Your task to perform on an android device: Show the shopping cart on walmart.com. Add jbl flip 4 to the cart on walmart.com Image 0: 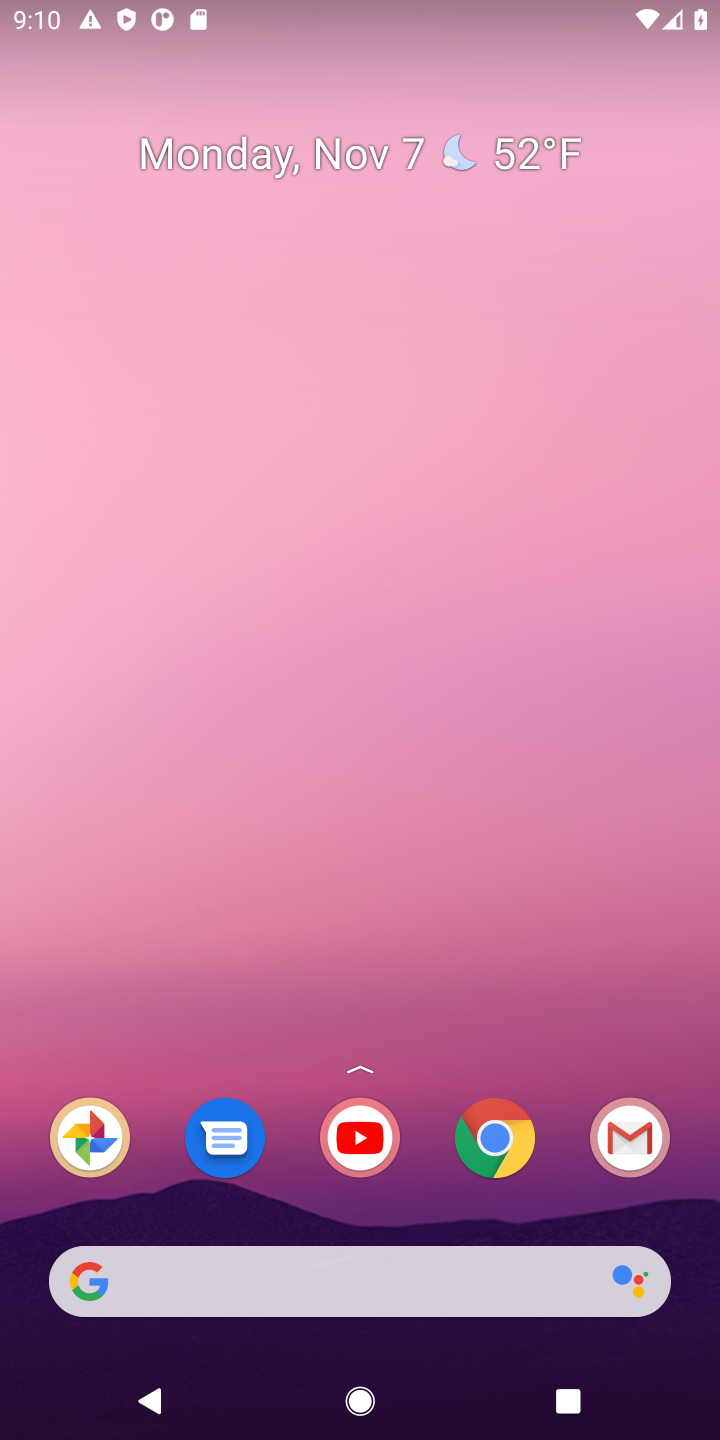
Step 0: drag from (422, 1199) to (487, 320)
Your task to perform on an android device: Show the shopping cart on walmart.com. Add jbl flip 4 to the cart on walmart.com Image 1: 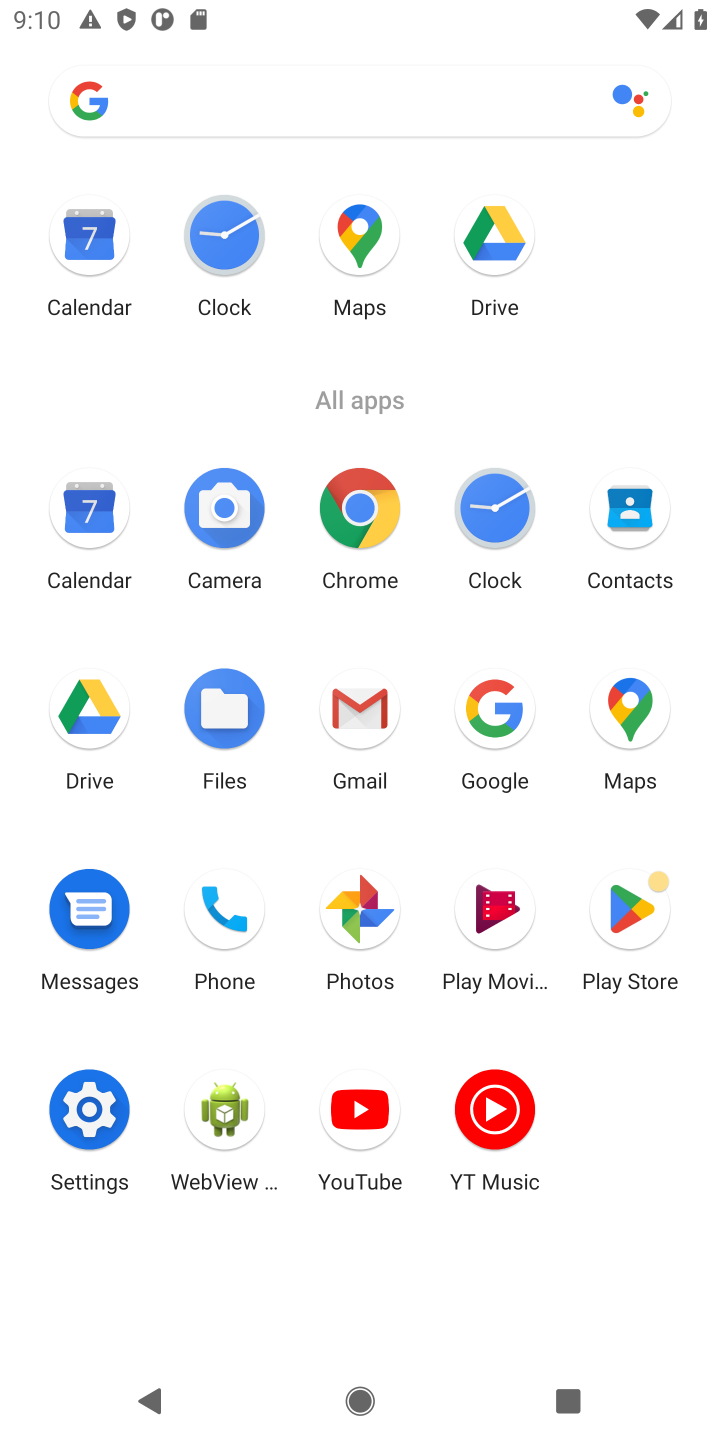
Step 1: click (369, 496)
Your task to perform on an android device: Show the shopping cart on walmart.com. Add jbl flip 4 to the cart on walmart.com Image 2: 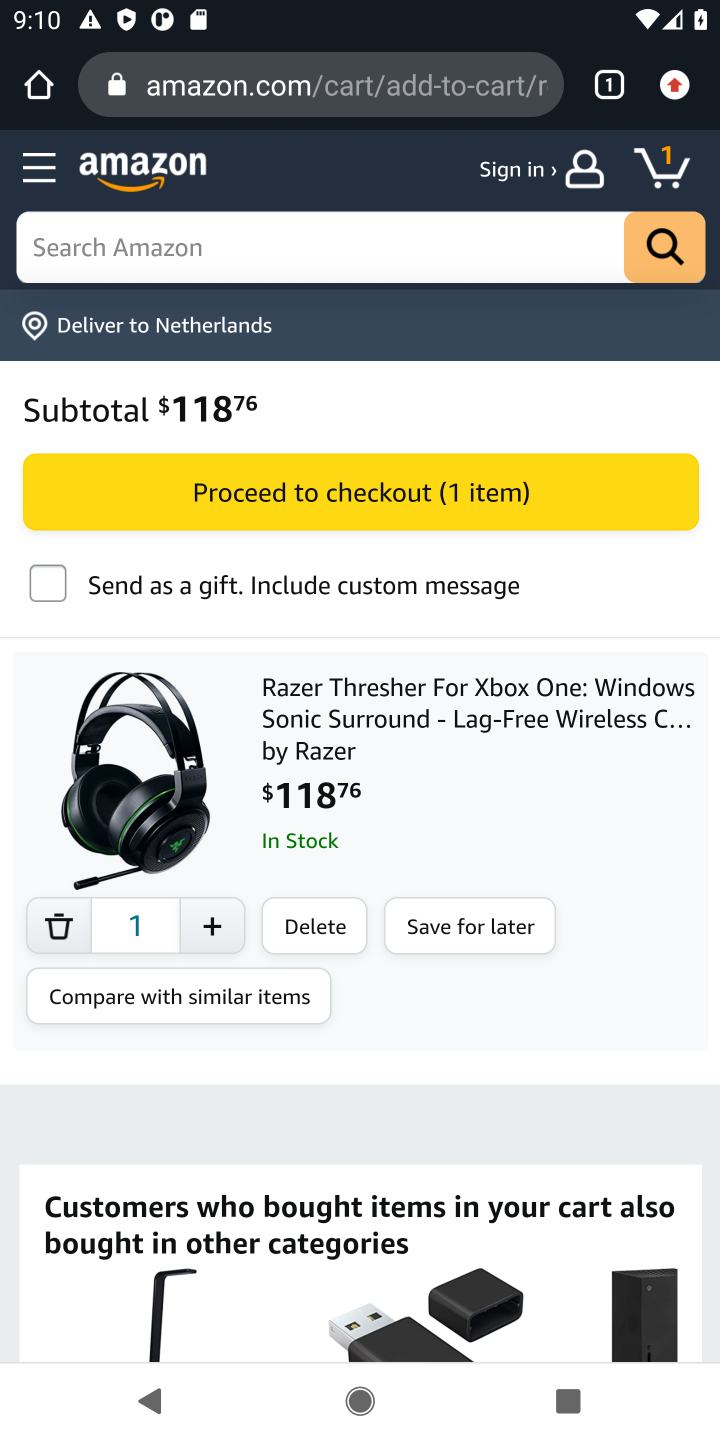
Step 2: click (348, 95)
Your task to perform on an android device: Show the shopping cart on walmart.com. Add jbl flip 4 to the cart on walmart.com Image 3: 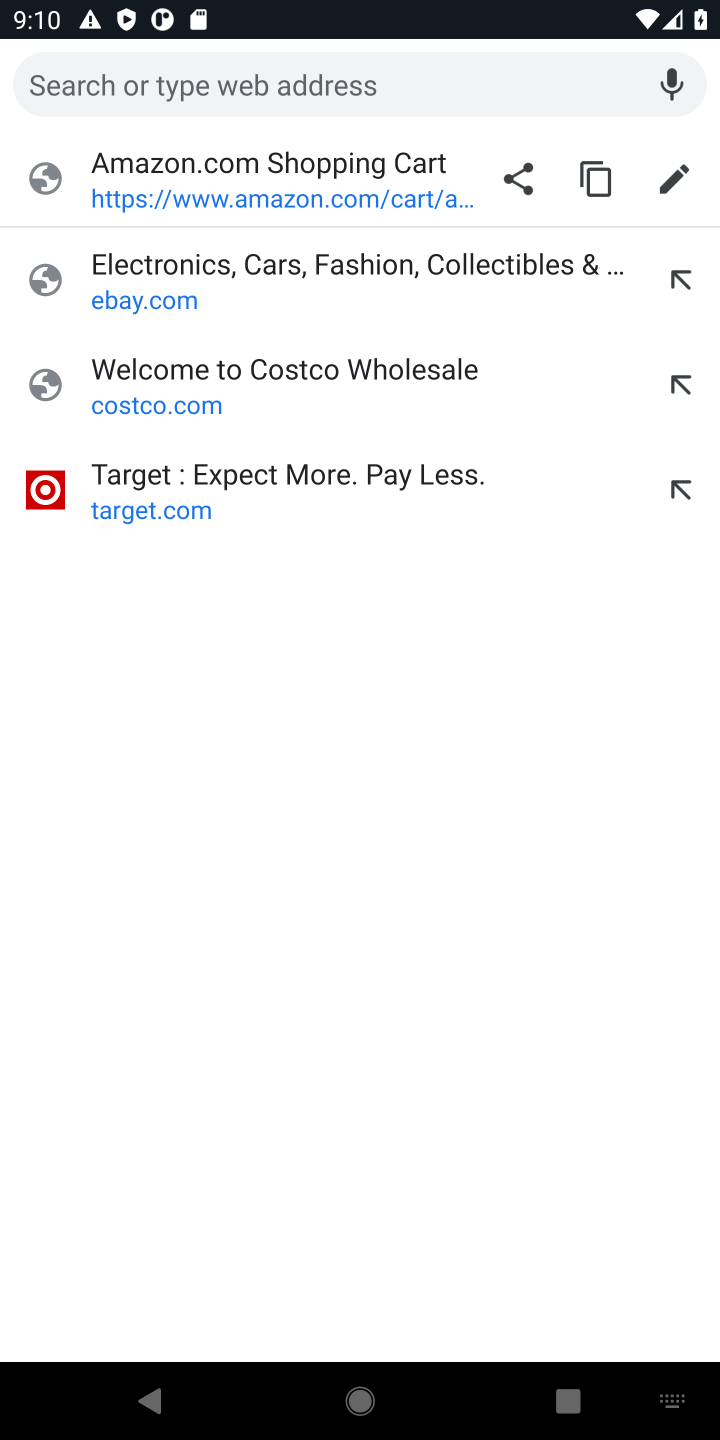
Step 3: type "walmart.com"
Your task to perform on an android device: Show the shopping cart on walmart.com. Add jbl flip 4 to the cart on walmart.com Image 4: 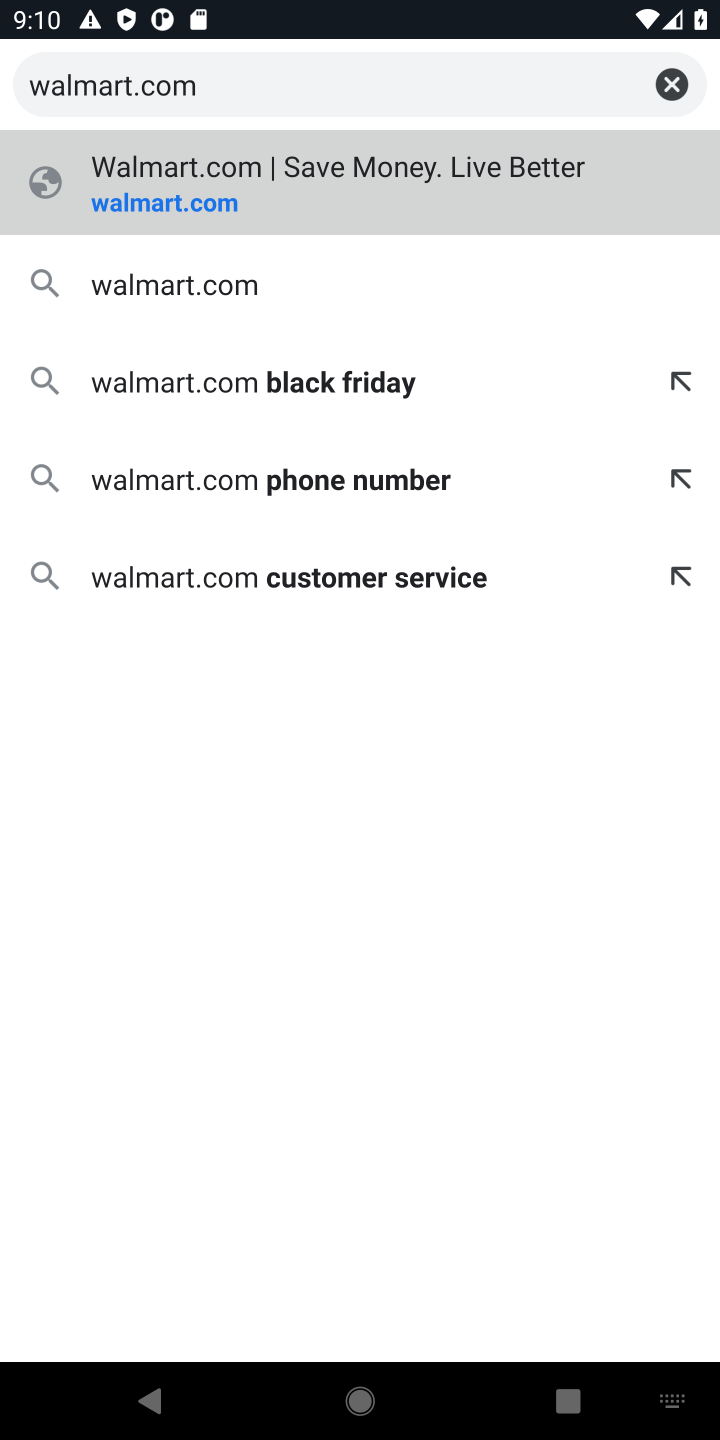
Step 4: press enter
Your task to perform on an android device: Show the shopping cart on walmart.com. Add jbl flip 4 to the cart on walmart.com Image 5: 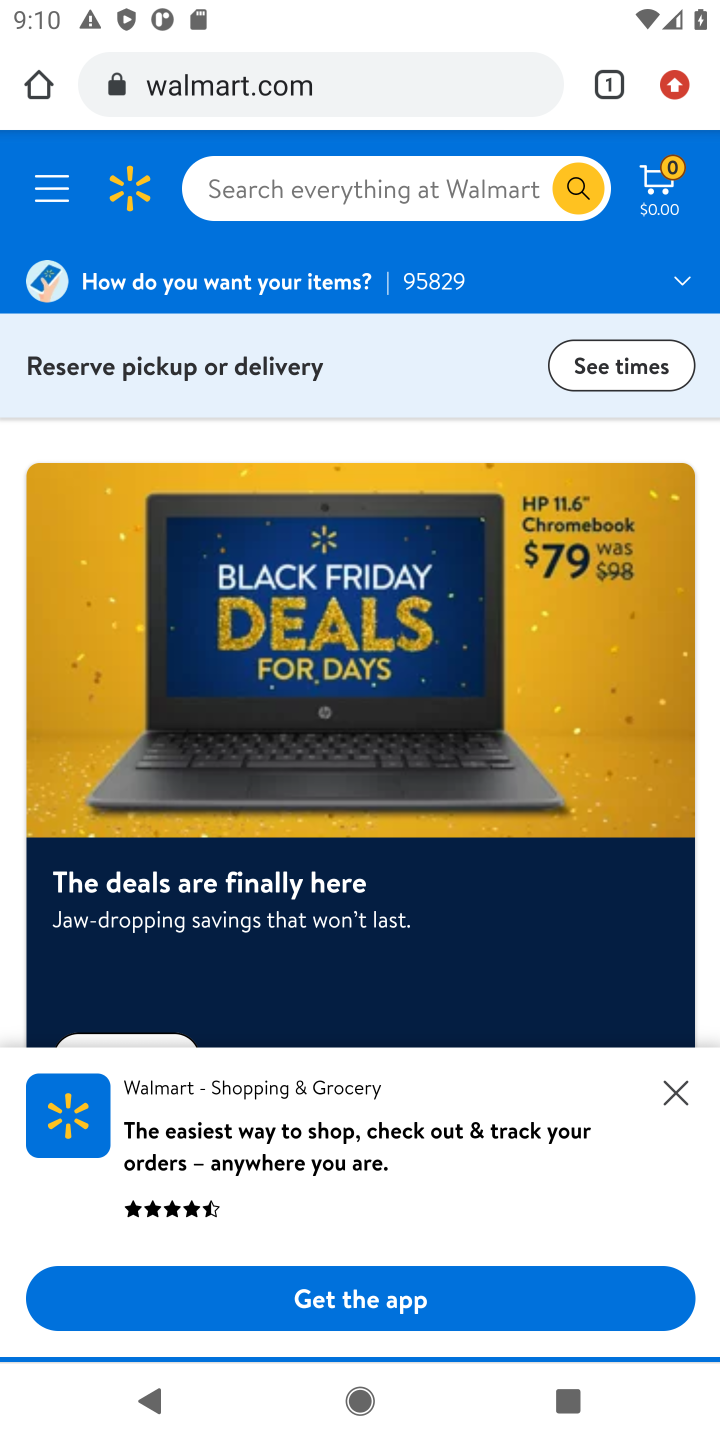
Step 5: click (456, 193)
Your task to perform on an android device: Show the shopping cart on walmart.com. Add jbl flip 4 to the cart on walmart.com Image 6: 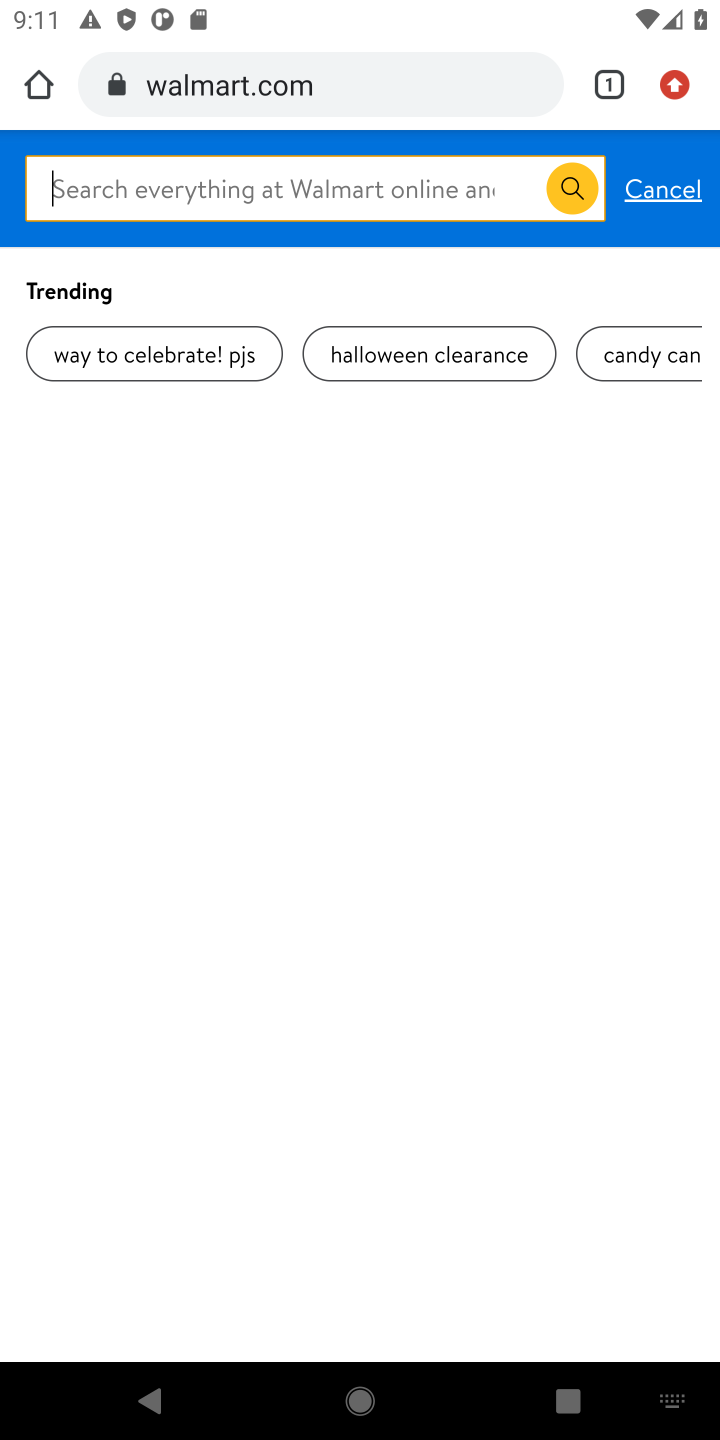
Step 6: type "jbl flip 4"
Your task to perform on an android device: Show the shopping cart on walmart.com. Add jbl flip 4 to the cart on walmart.com Image 7: 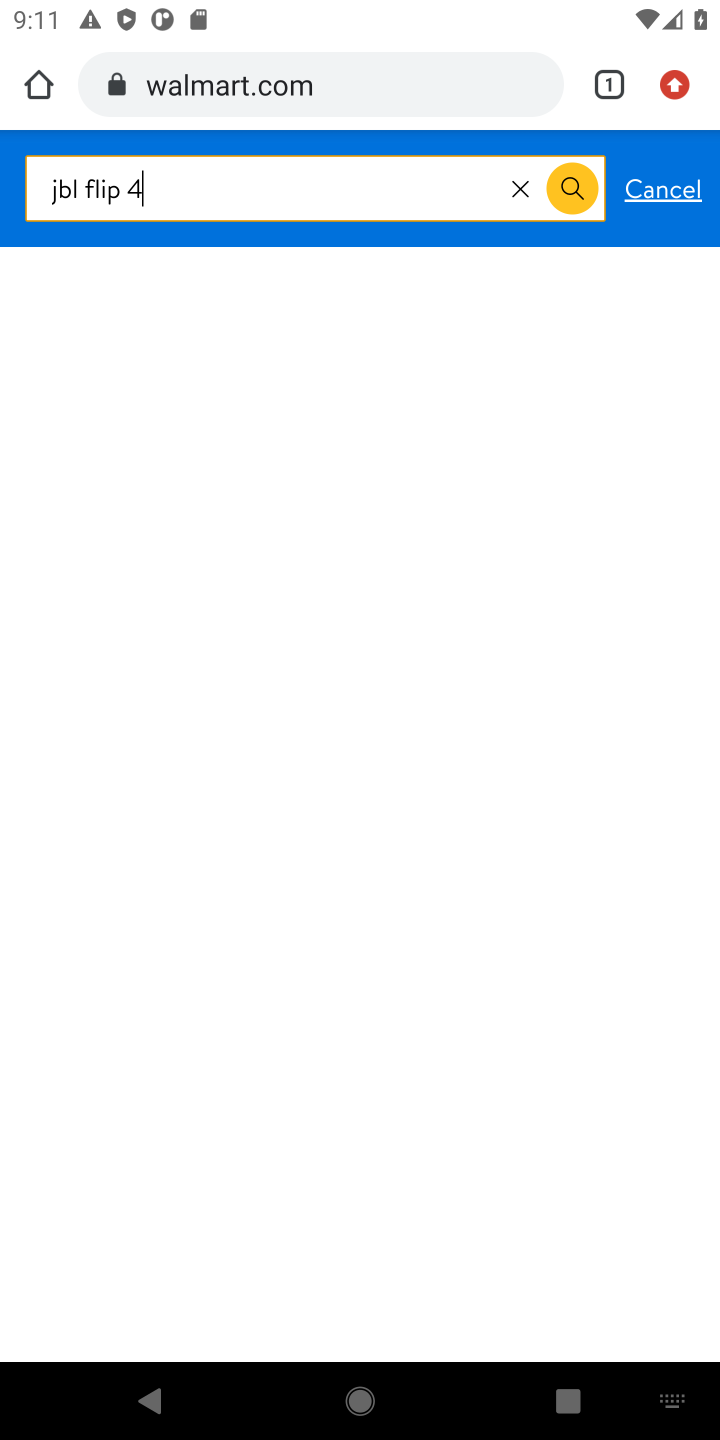
Step 7: press enter
Your task to perform on an android device: Show the shopping cart on walmart.com. Add jbl flip 4 to the cart on walmart.com Image 8: 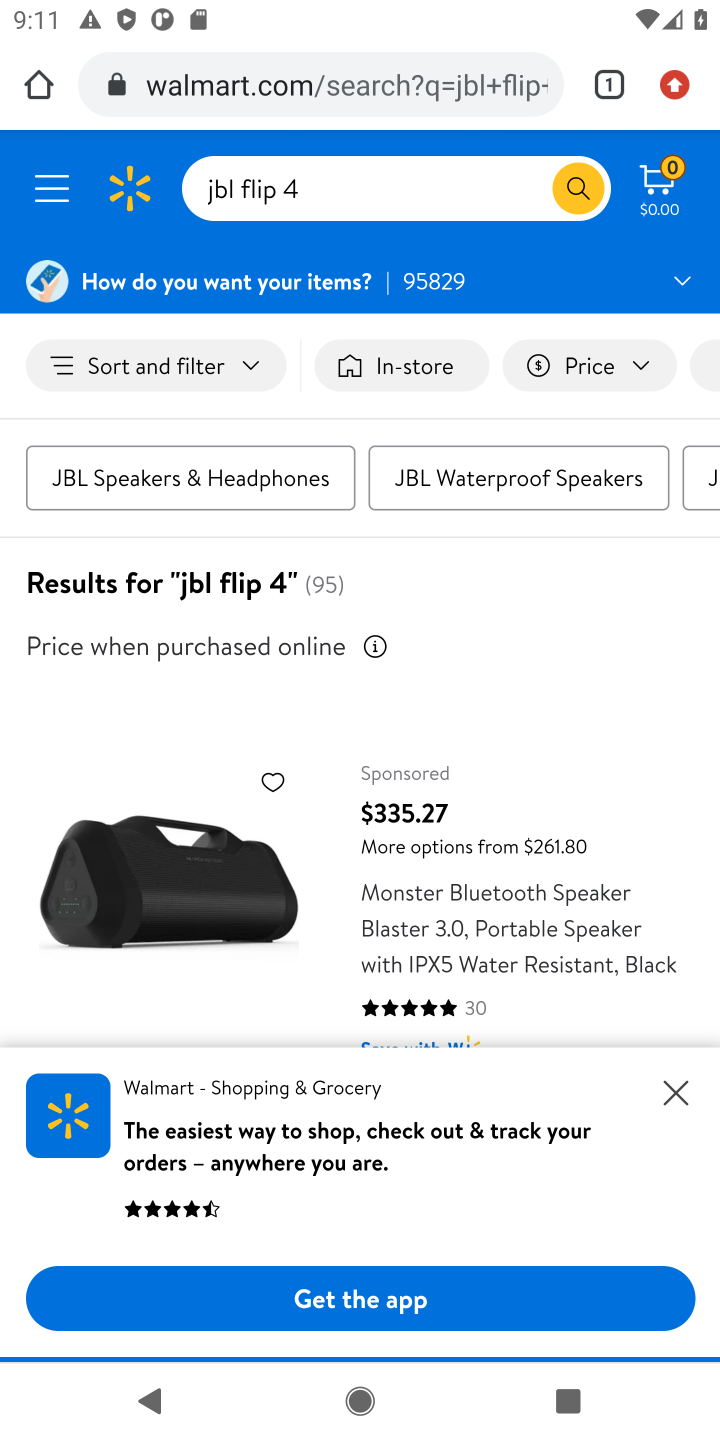
Step 8: drag from (555, 970) to (477, 179)
Your task to perform on an android device: Show the shopping cart on walmart.com. Add jbl flip 4 to the cart on walmart.com Image 9: 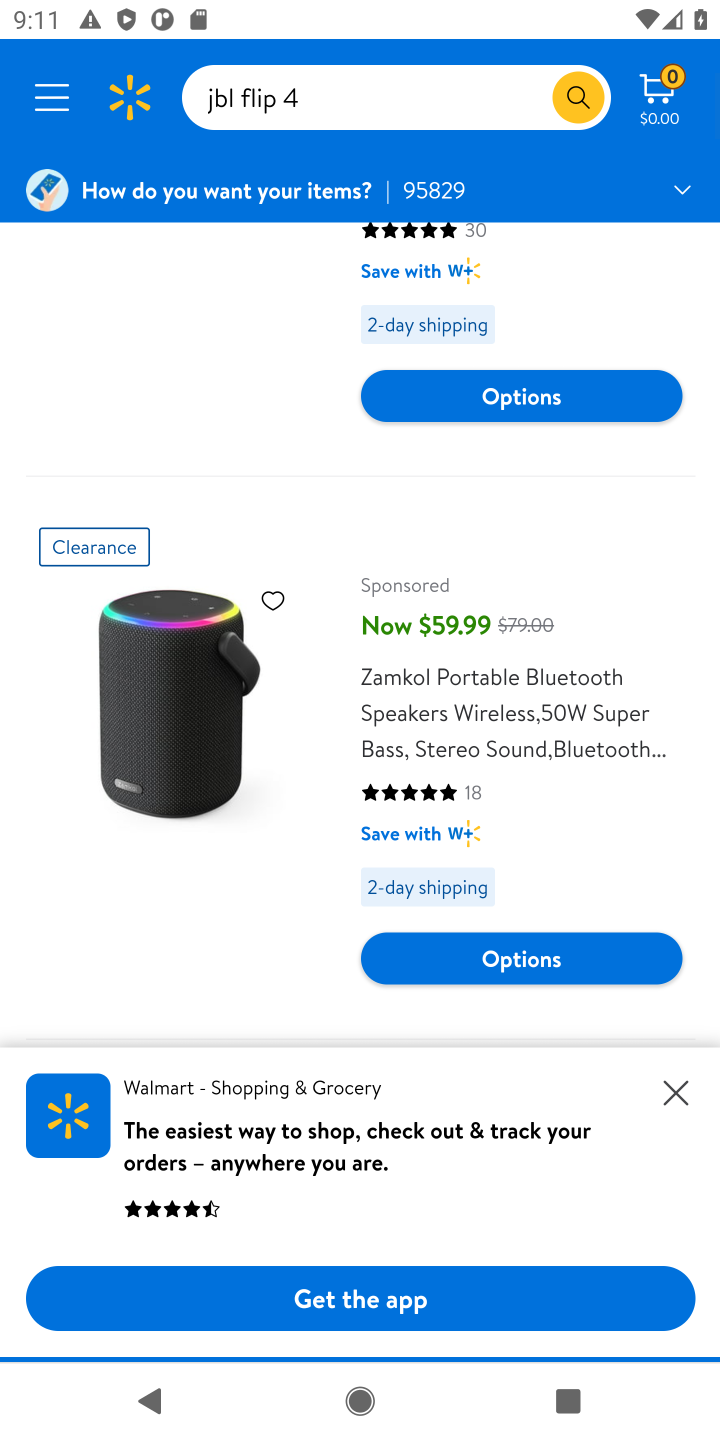
Step 9: drag from (453, 842) to (401, 209)
Your task to perform on an android device: Show the shopping cart on walmart.com. Add jbl flip 4 to the cart on walmart.com Image 10: 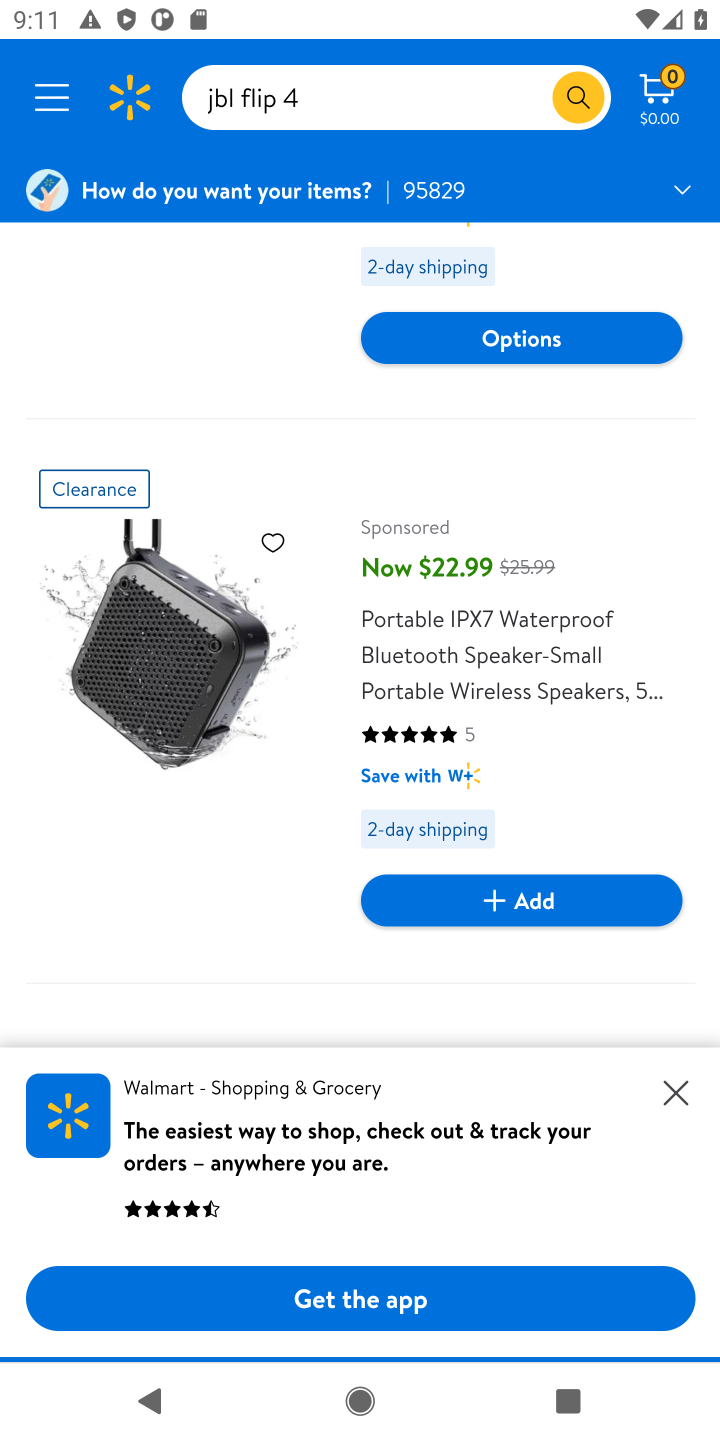
Step 10: drag from (322, 980) to (296, 346)
Your task to perform on an android device: Show the shopping cart on walmart.com. Add jbl flip 4 to the cart on walmart.com Image 11: 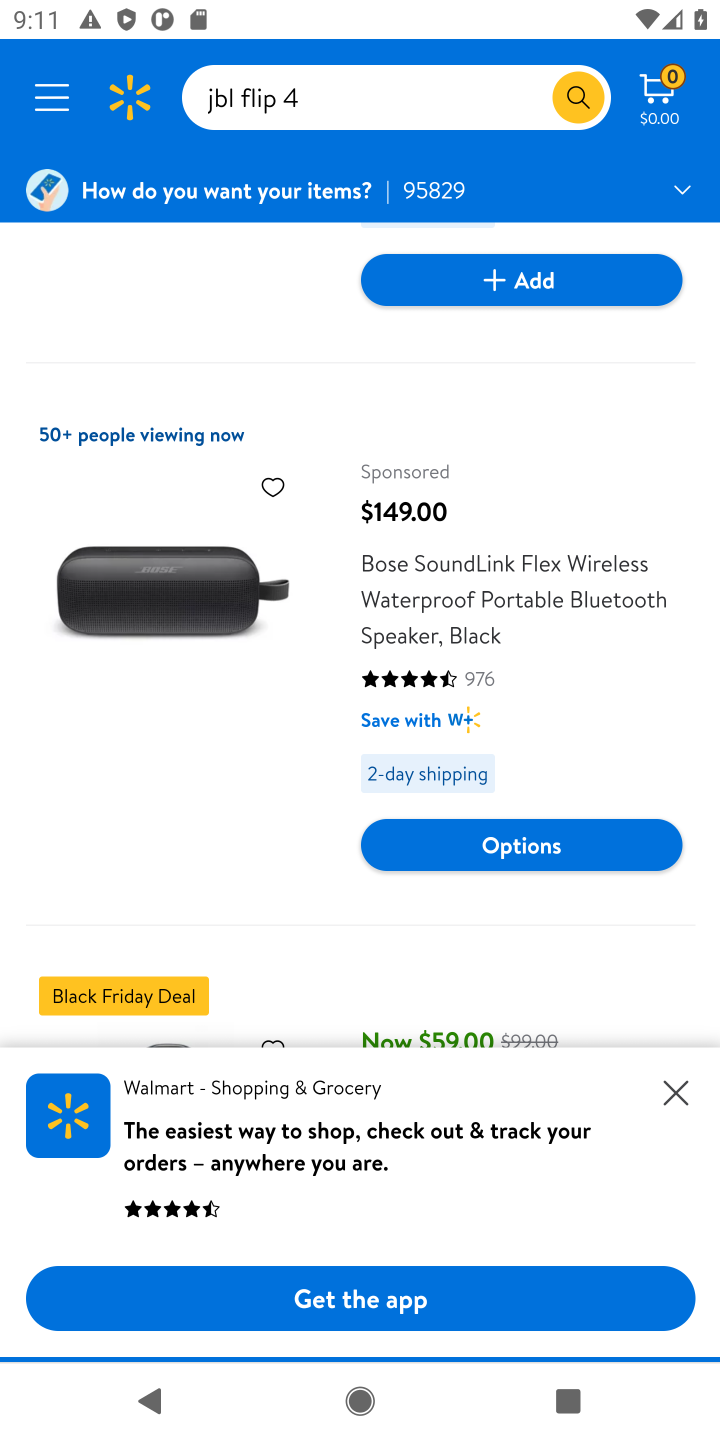
Step 11: drag from (442, 919) to (392, 453)
Your task to perform on an android device: Show the shopping cart on walmart.com. Add jbl flip 4 to the cart on walmart.com Image 12: 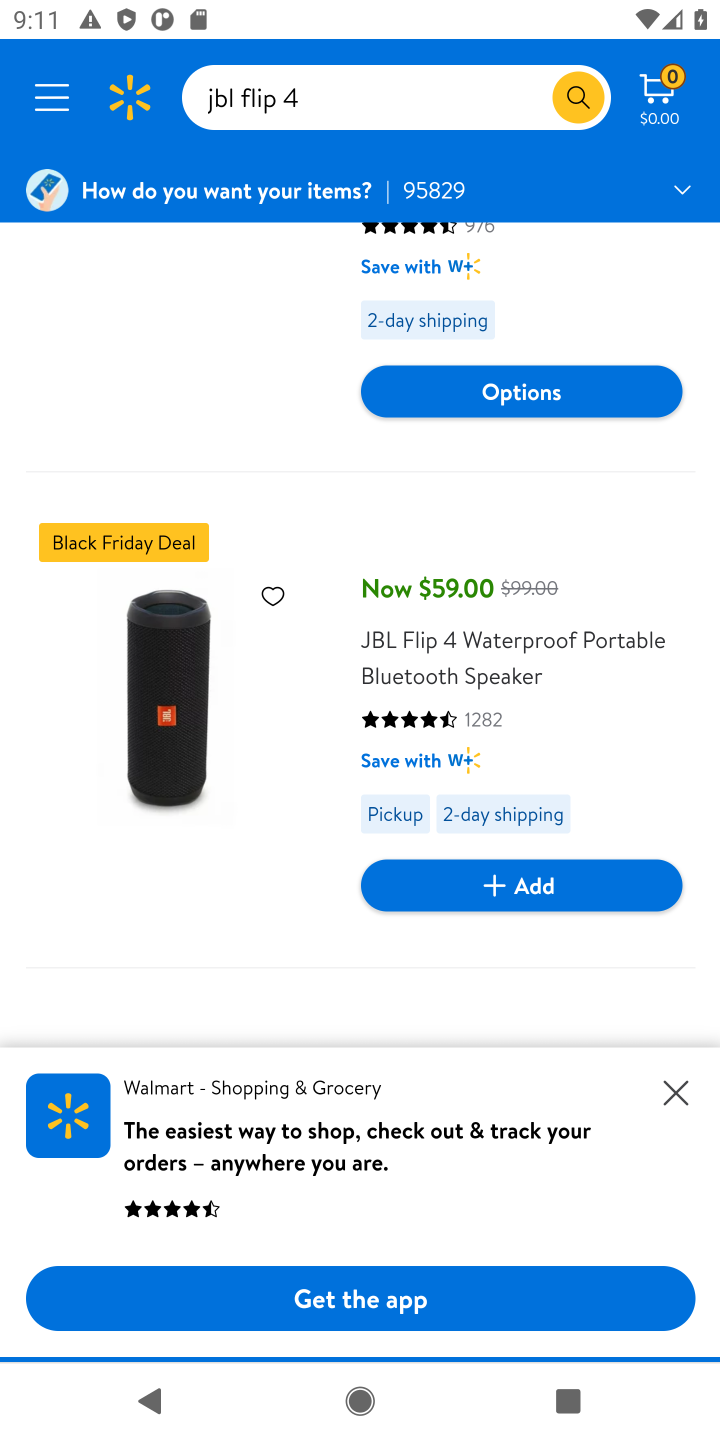
Step 12: click (592, 888)
Your task to perform on an android device: Show the shopping cart on walmart.com. Add jbl flip 4 to the cart on walmart.com Image 13: 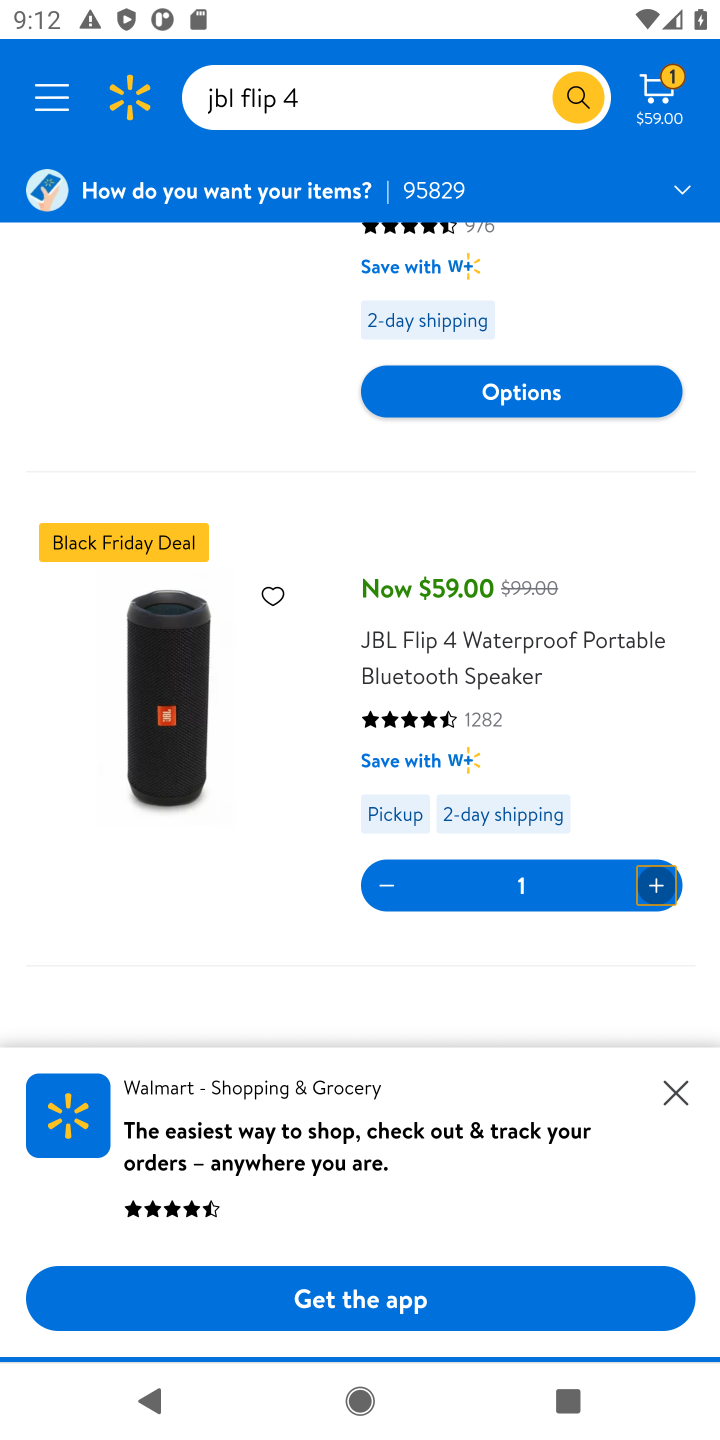
Step 13: task complete